Your task to perform on an android device: Open Google Chrome and open the bookmarks view Image 0: 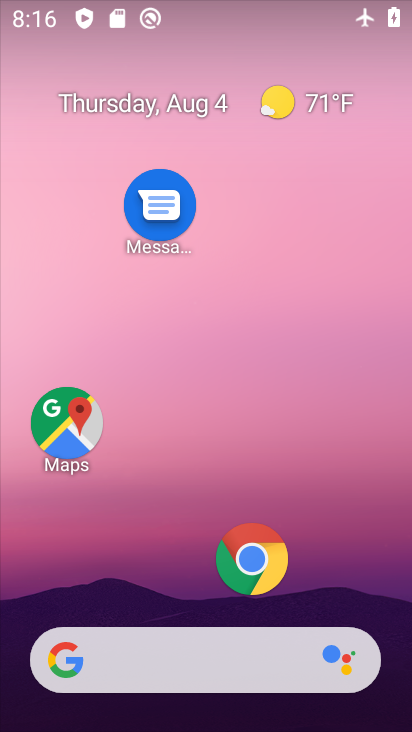
Step 0: drag from (213, 602) to (177, 35)
Your task to perform on an android device: Open Google Chrome and open the bookmarks view Image 1: 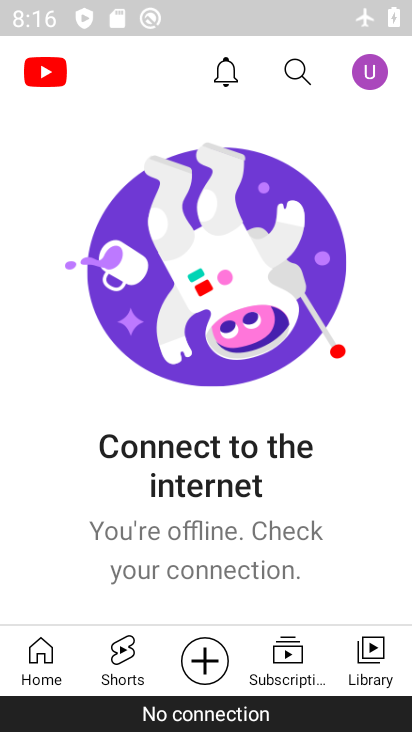
Step 1: press back button
Your task to perform on an android device: Open Google Chrome and open the bookmarks view Image 2: 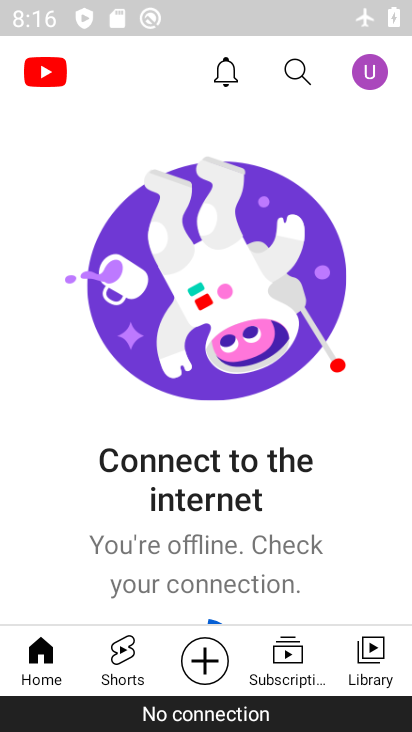
Step 2: press back button
Your task to perform on an android device: Open Google Chrome and open the bookmarks view Image 3: 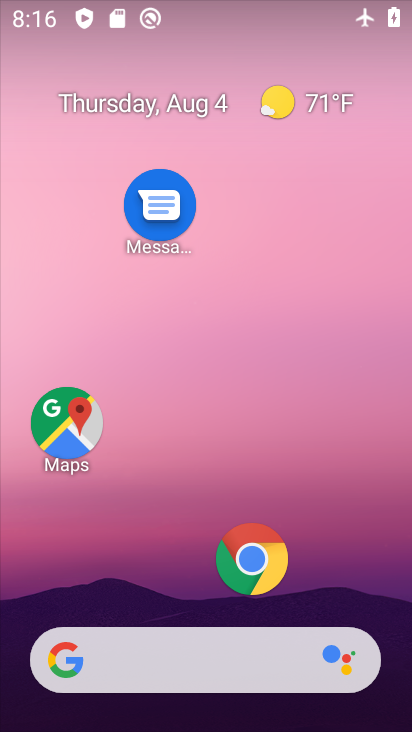
Step 3: click (242, 574)
Your task to perform on an android device: Open Google Chrome and open the bookmarks view Image 4: 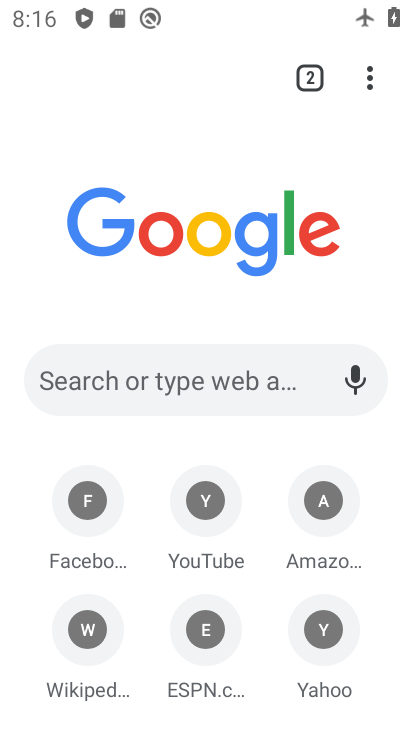
Step 4: click (376, 68)
Your task to perform on an android device: Open Google Chrome and open the bookmarks view Image 5: 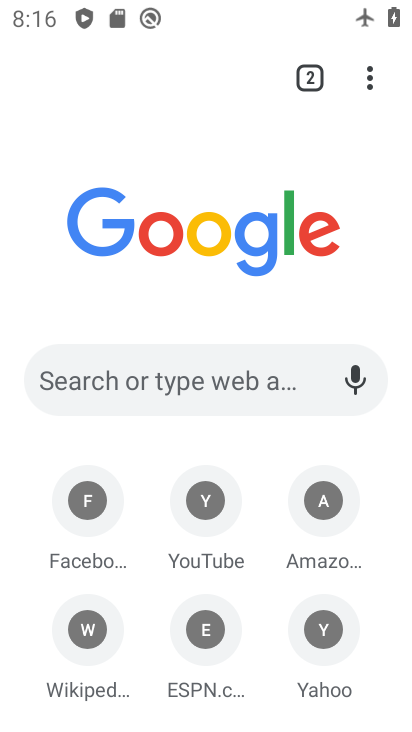
Step 5: click (361, 84)
Your task to perform on an android device: Open Google Chrome and open the bookmarks view Image 6: 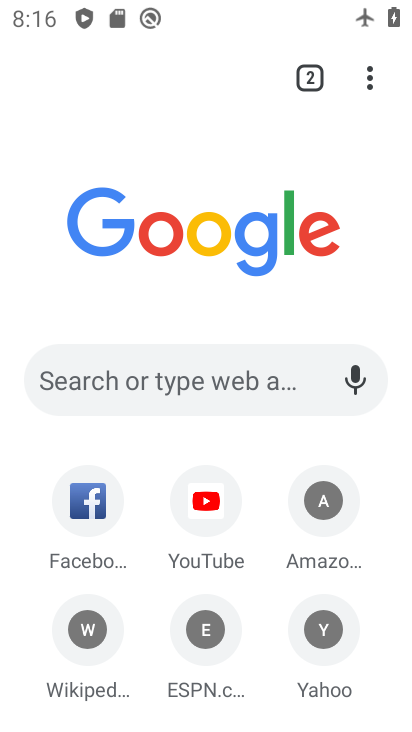
Step 6: task complete